Your task to perform on an android device: Open privacy settings Image 0: 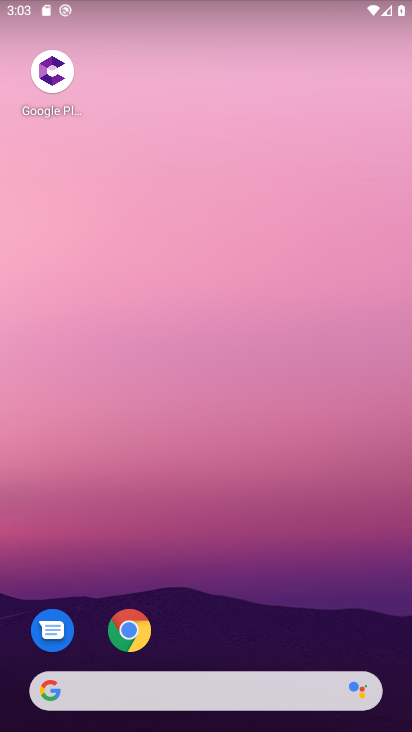
Step 0: drag from (312, 610) to (200, 242)
Your task to perform on an android device: Open privacy settings Image 1: 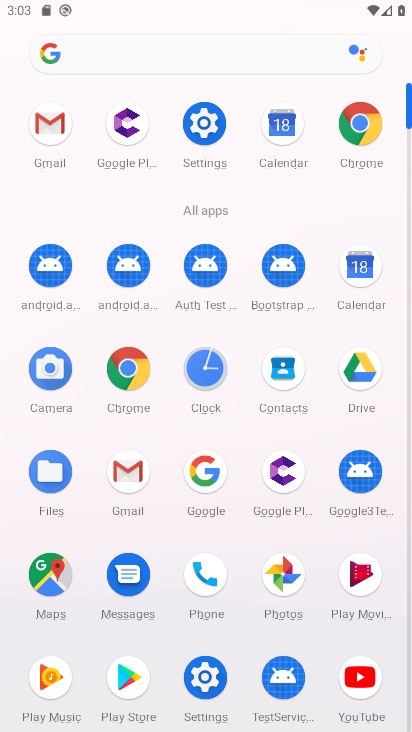
Step 1: click (216, 117)
Your task to perform on an android device: Open privacy settings Image 2: 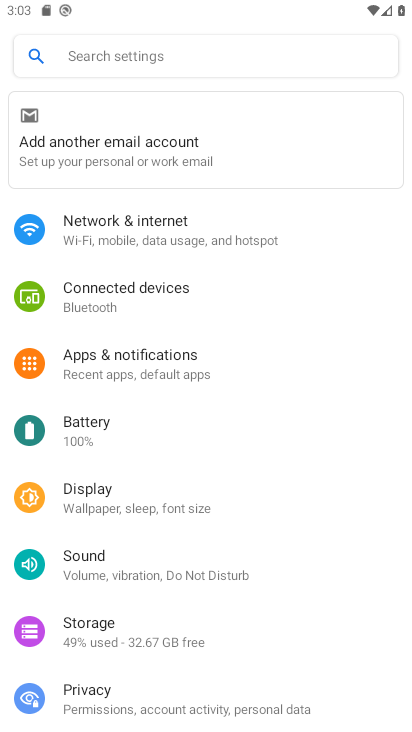
Step 2: click (244, 701)
Your task to perform on an android device: Open privacy settings Image 3: 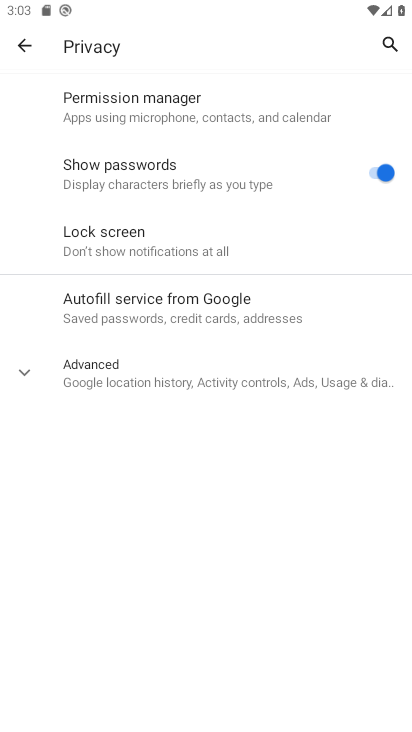
Step 3: task complete